Your task to perform on an android device: delete location history Image 0: 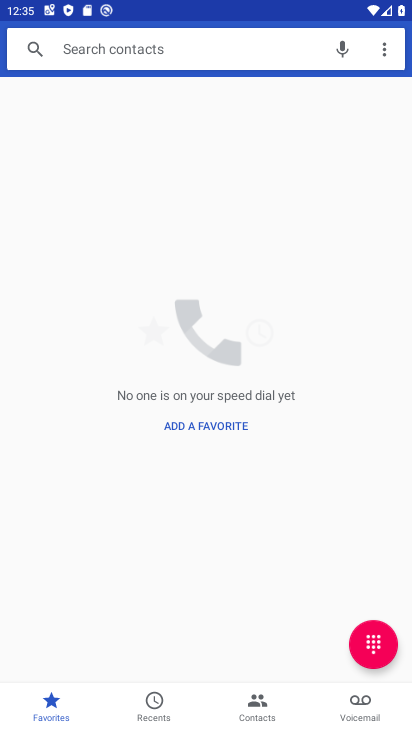
Step 0: press home button
Your task to perform on an android device: delete location history Image 1: 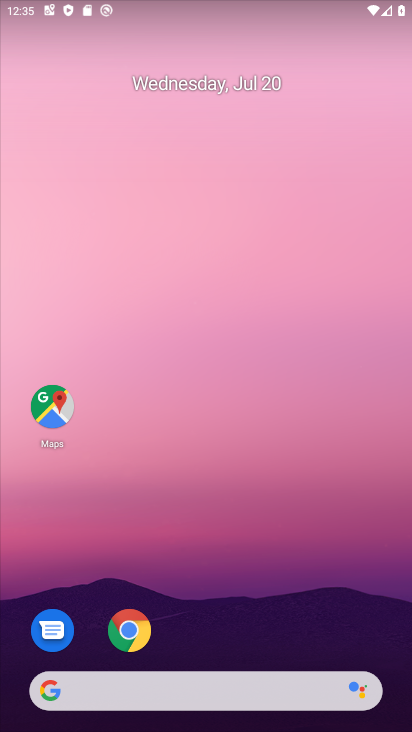
Step 1: click (44, 386)
Your task to perform on an android device: delete location history Image 2: 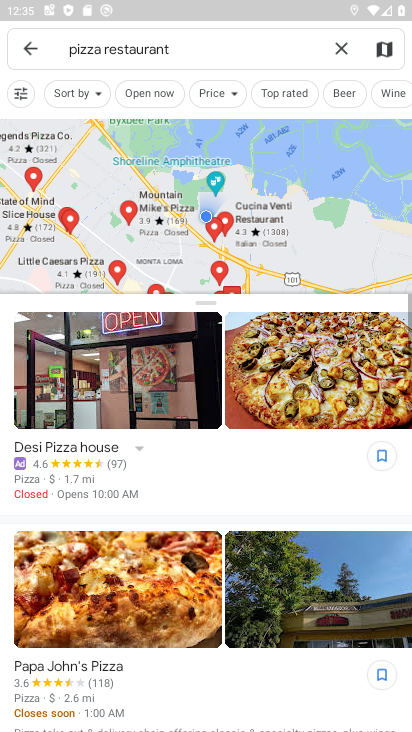
Step 2: click (25, 50)
Your task to perform on an android device: delete location history Image 3: 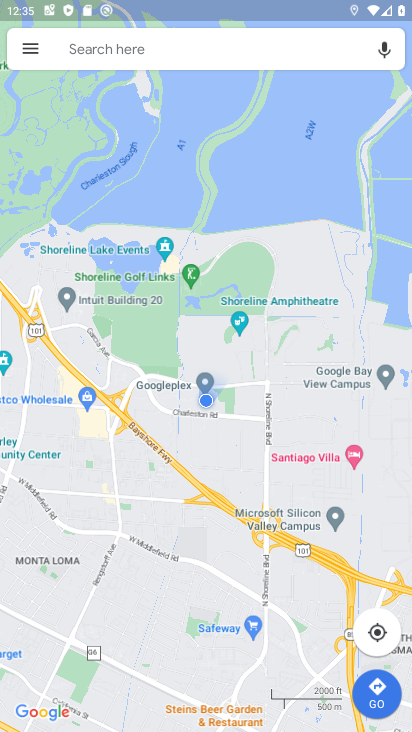
Step 3: click (25, 50)
Your task to perform on an android device: delete location history Image 4: 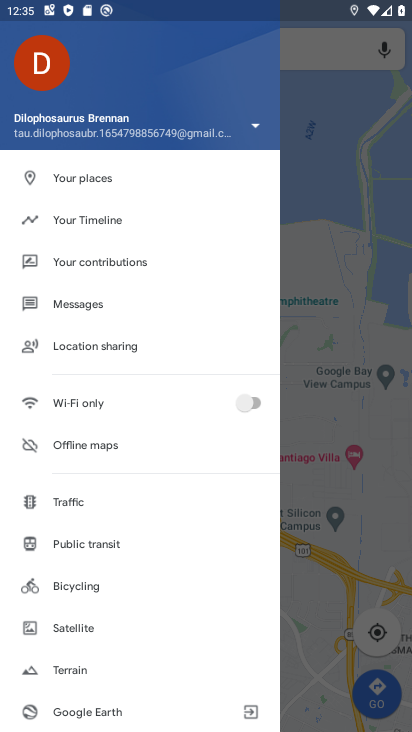
Step 4: drag from (150, 651) to (196, 276)
Your task to perform on an android device: delete location history Image 5: 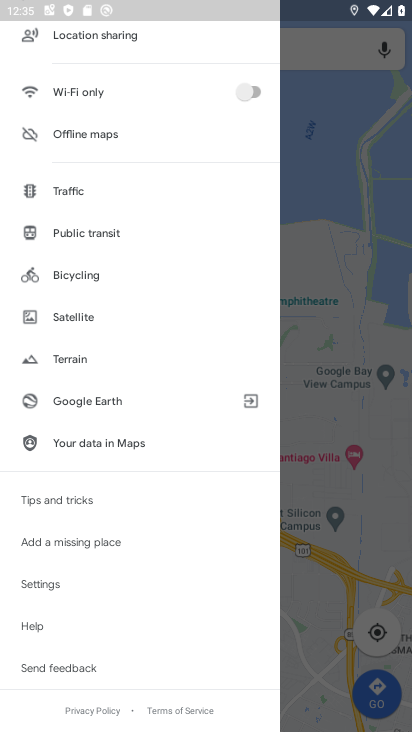
Step 5: click (47, 582)
Your task to perform on an android device: delete location history Image 6: 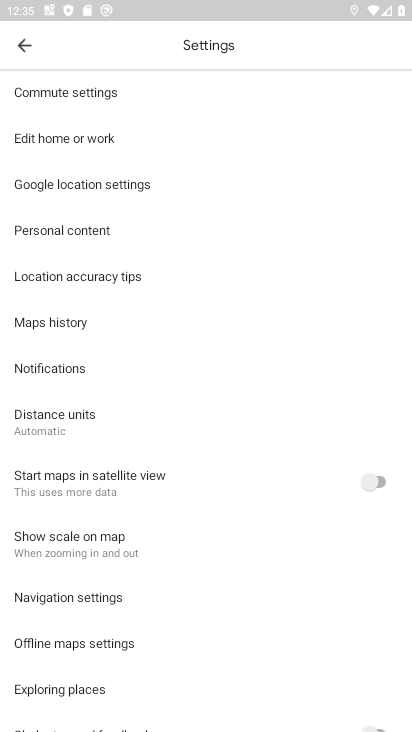
Step 6: drag from (205, 116) to (202, 477)
Your task to perform on an android device: delete location history Image 7: 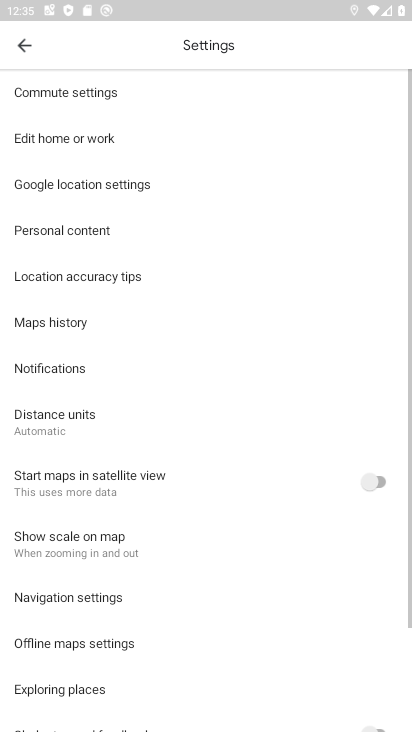
Step 7: drag from (251, 644) to (250, 100)
Your task to perform on an android device: delete location history Image 8: 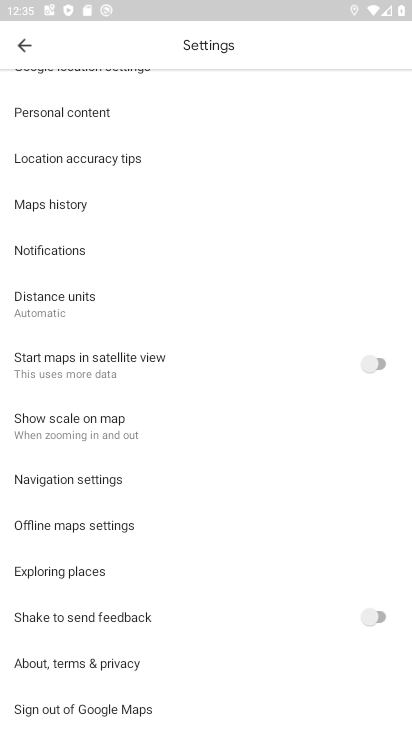
Step 8: drag from (271, 704) to (218, 112)
Your task to perform on an android device: delete location history Image 9: 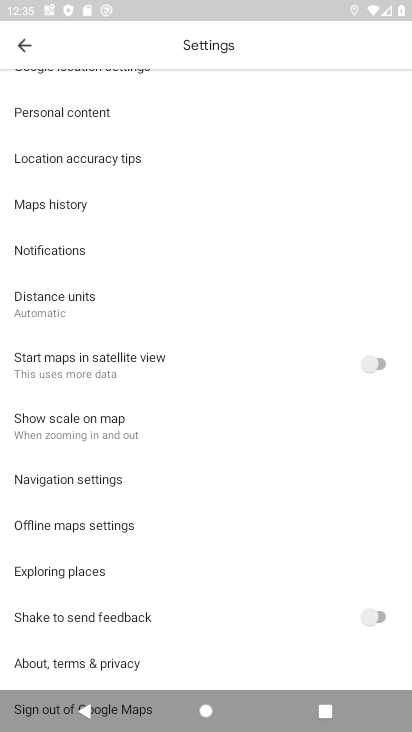
Step 9: drag from (260, 132) to (283, 700)
Your task to perform on an android device: delete location history Image 10: 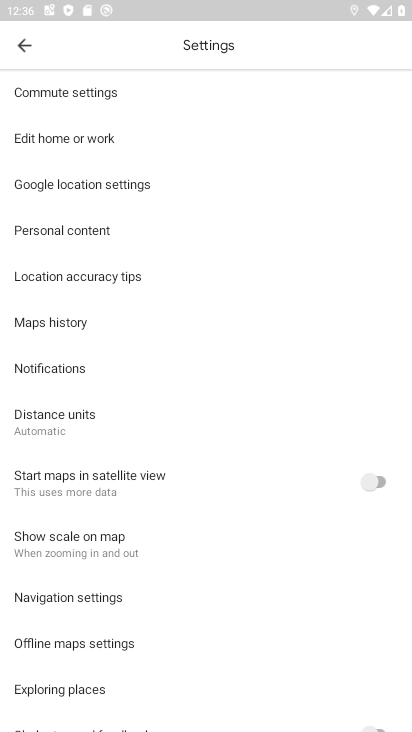
Step 10: click (21, 318)
Your task to perform on an android device: delete location history Image 11: 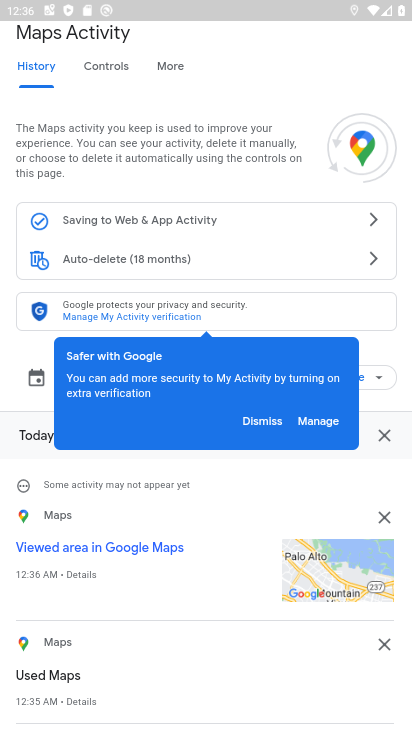
Step 11: click (258, 424)
Your task to perform on an android device: delete location history Image 12: 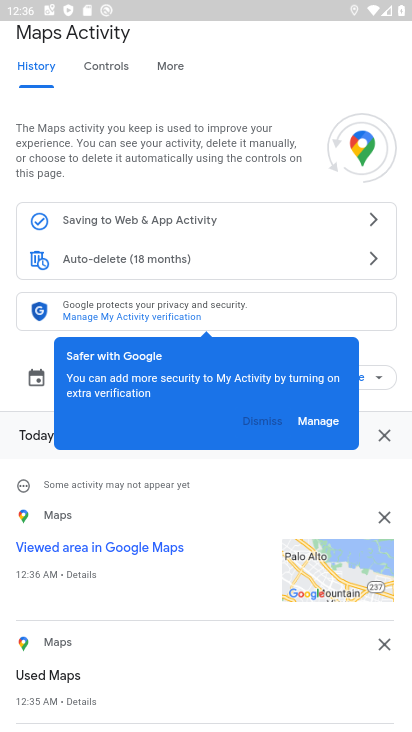
Step 12: click (320, 418)
Your task to perform on an android device: delete location history Image 13: 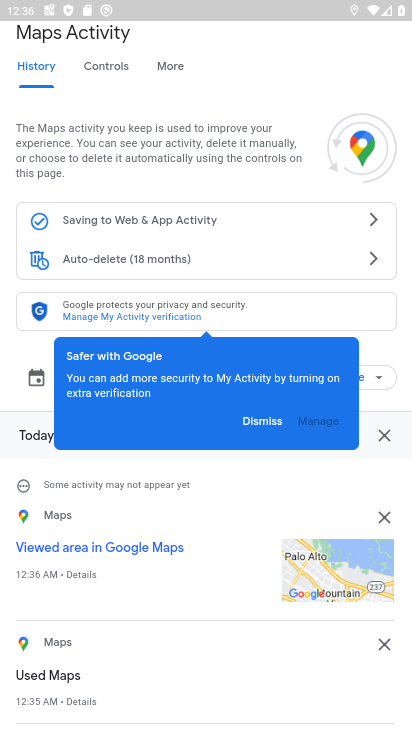
Step 13: click (362, 374)
Your task to perform on an android device: delete location history Image 14: 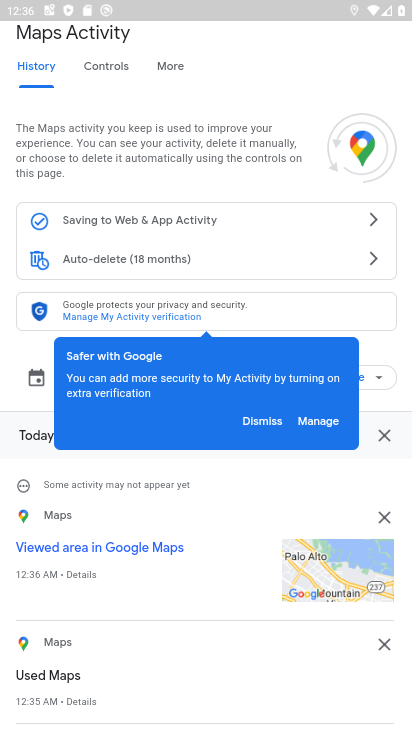
Step 14: click (364, 375)
Your task to perform on an android device: delete location history Image 15: 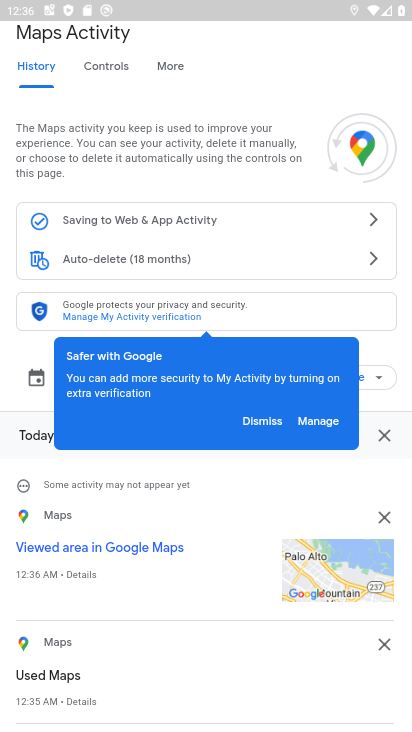
Step 15: click (263, 419)
Your task to perform on an android device: delete location history Image 16: 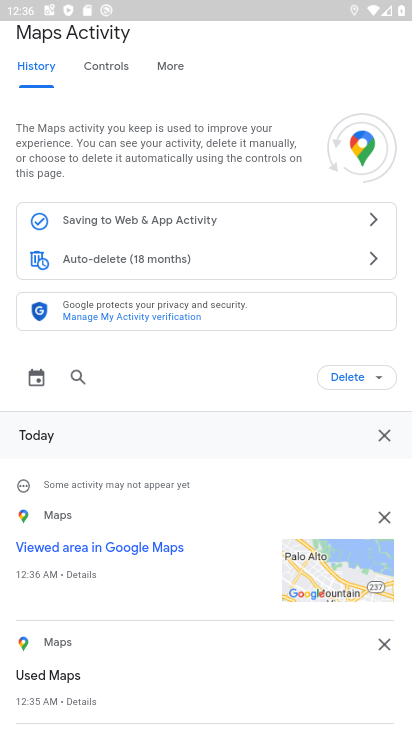
Step 16: click (359, 389)
Your task to perform on an android device: delete location history Image 17: 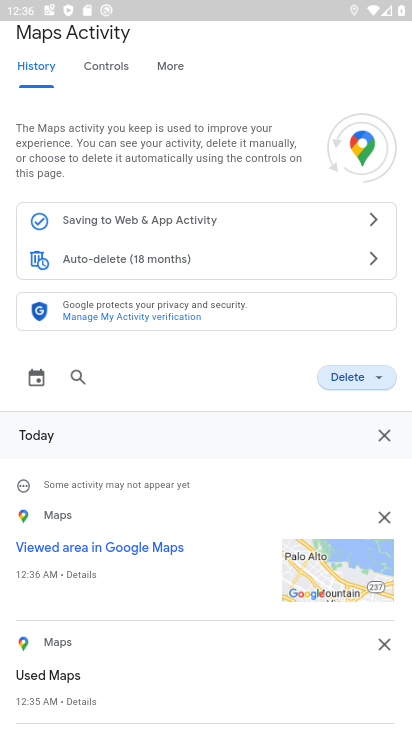
Step 17: click (357, 376)
Your task to perform on an android device: delete location history Image 18: 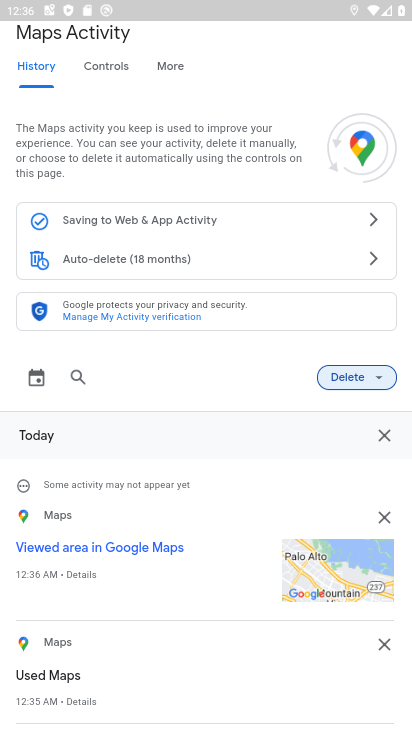
Step 18: click (347, 373)
Your task to perform on an android device: delete location history Image 19: 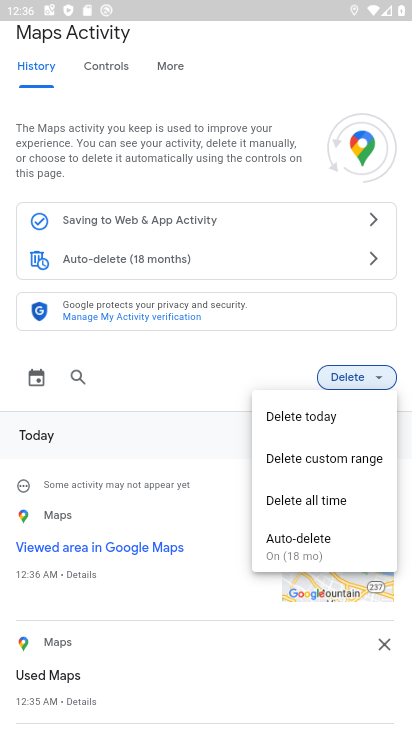
Step 19: click (328, 498)
Your task to perform on an android device: delete location history Image 20: 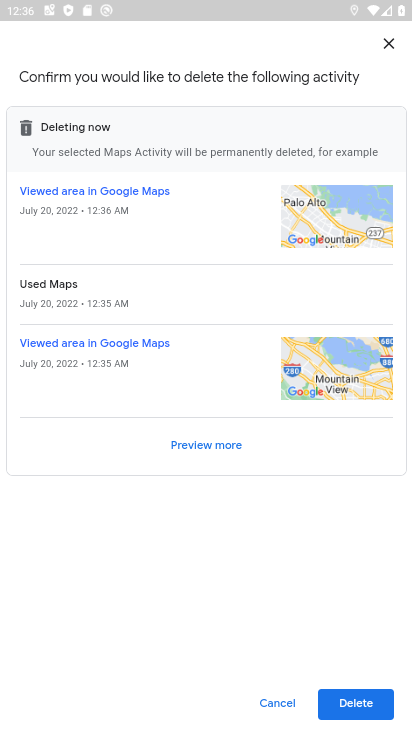
Step 20: click (347, 693)
Your task to perform on an android device: delete location history Image 21: 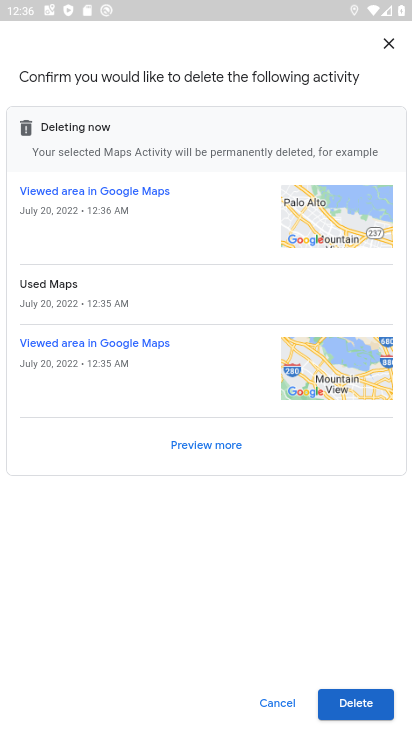
Step 21: click (354, 709)
Your task to perform on an android device: delete location history Image 22: 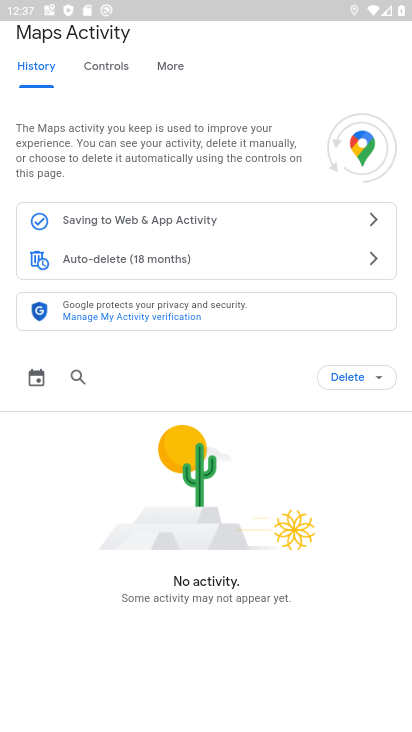
Step 22: click (367, 374)
Your task to perform on an android device: delete location history Image 23: 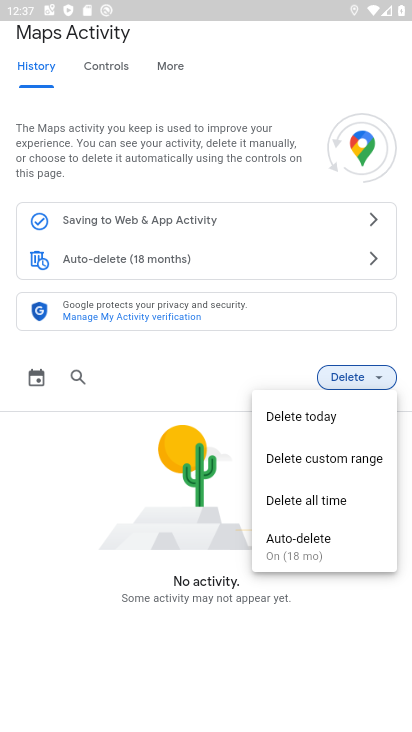
Step 23: task complete